Your task to perform on an android device: Open settings on Google Maps Image 0: 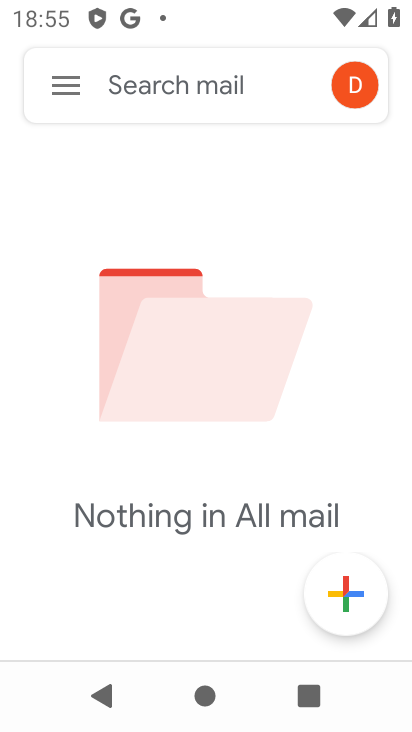
Step 0: press home button
Your task to perform on an android device: Open settings on Google Maps Image 1: 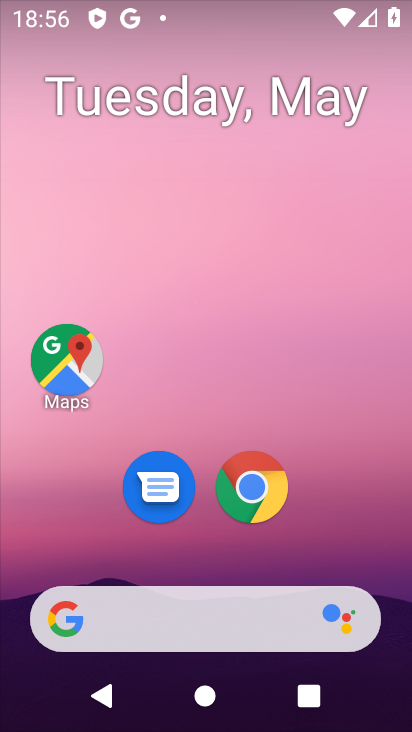
Step 1: click (60, 377)
Your task to perform on an android device: Open settings on Google Maps Image 2: 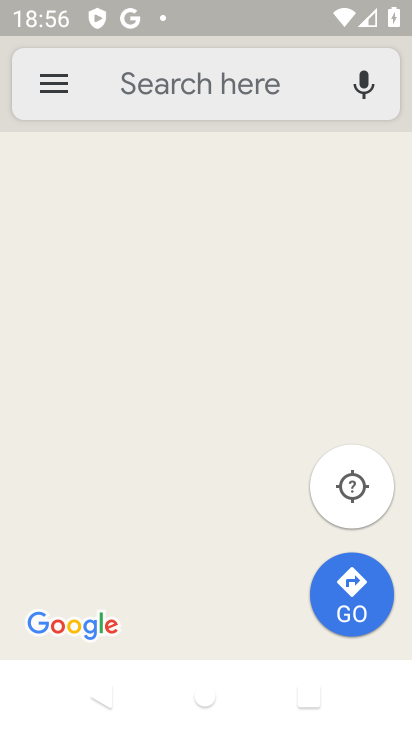
Step 2: click (42, 80)
Your task to perform on an android device: Open settings on Google Maps Image 3: 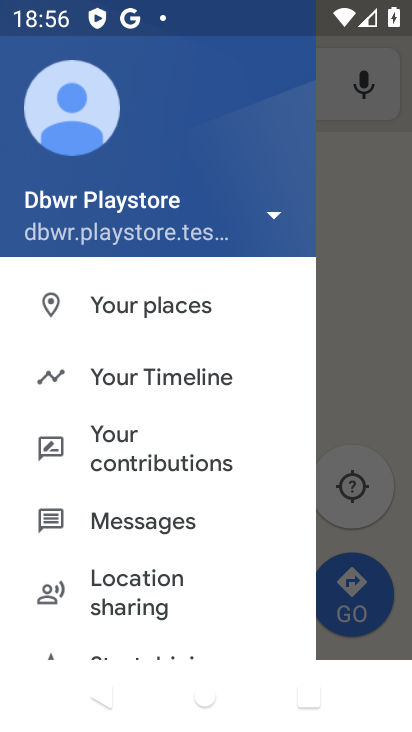
Step 3: drag from (198, 570) to (183, 194)
Your task to perform on an android device: Open settings on Google Maps Image 4: 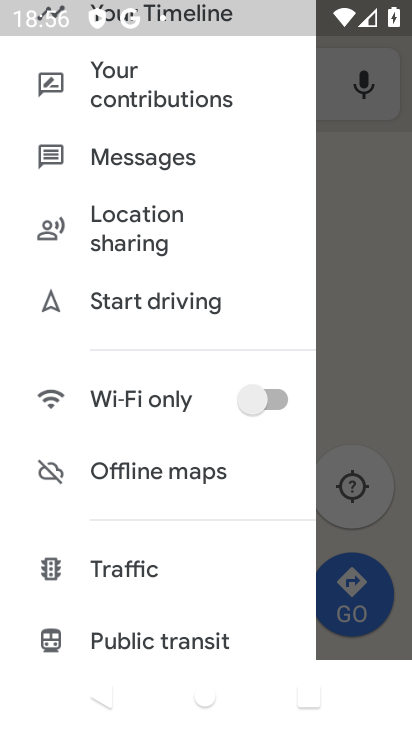
Step 4: drag from (174, 552) to (178, 84)
Your task to perform on an android device: Open settings on Google Maps Image 5: 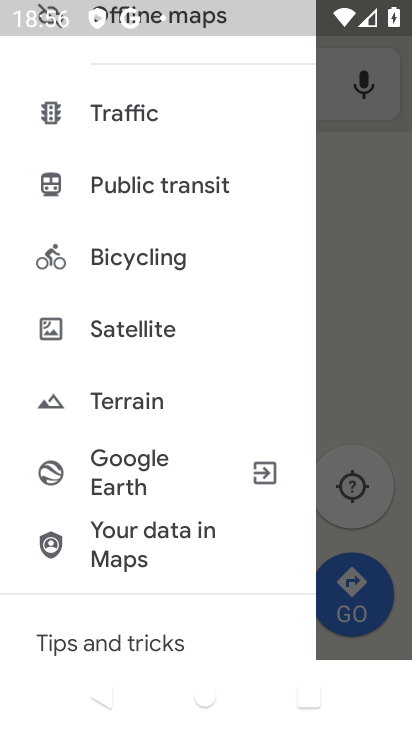
Step 5: drag from (180, 539) to (154, 192)
Your task to perform on an android device: Open settings on Google Maps Image 6: 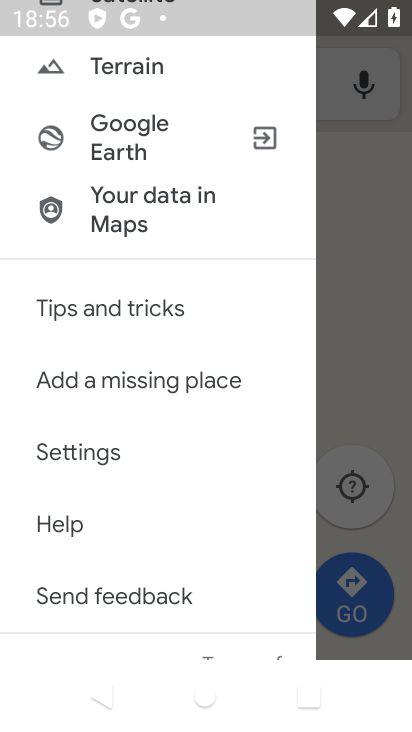
Step 6: click (74, 448)
Your task to perform on an android device: Open settings on Google Maps Image 7: 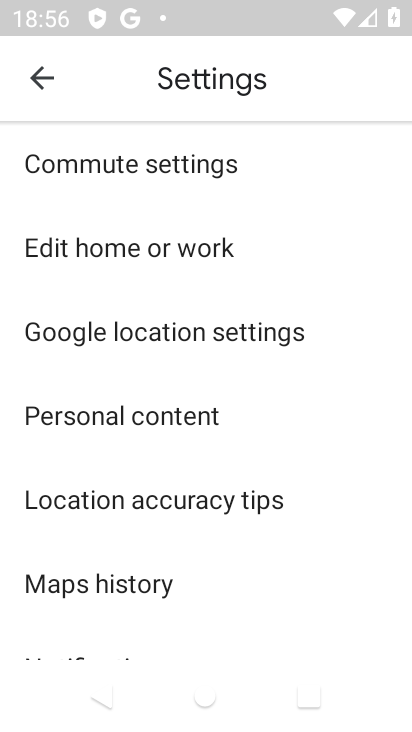
Step 7: task complete